Your task to perform on an android device: turn vacation reply on in the gmail app Image 0: 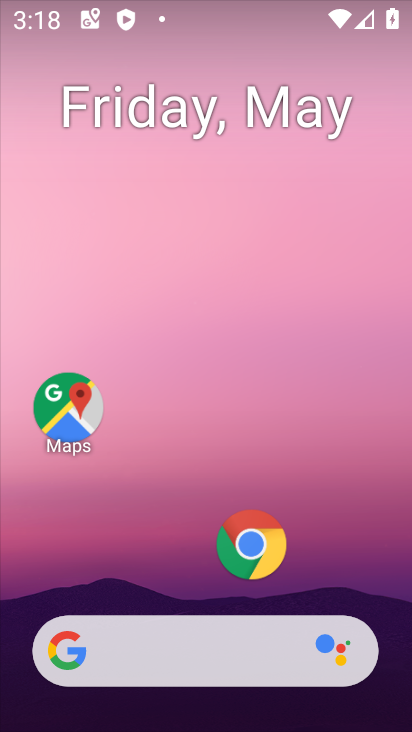
Step 0: drag from (203, 598) to (257, 270)
Your task to perform on an android device: turn vacation reply on in the gmail app Image 1: 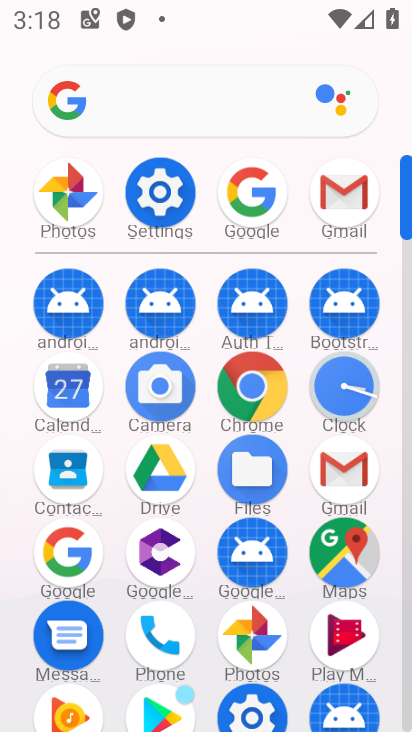
Step 1: click (325, 206)
Your task to perform on an android device: turn vacation reply on in the gmail app Image 2: 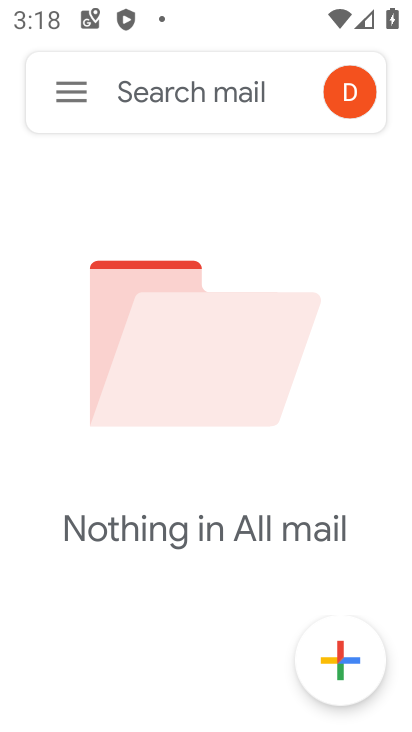
Step 2: click (84, 83)
Your task to perform on an android device: turn vacation reply on in the gmail app Image 3: 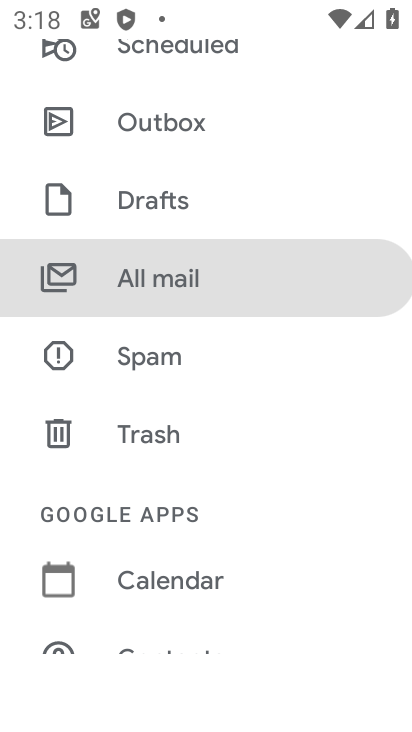
Step 3: drag from (239, 556) to (246, 238)
Your task to perform on an android device: turn vacation reply on in the gmail app Image 4: 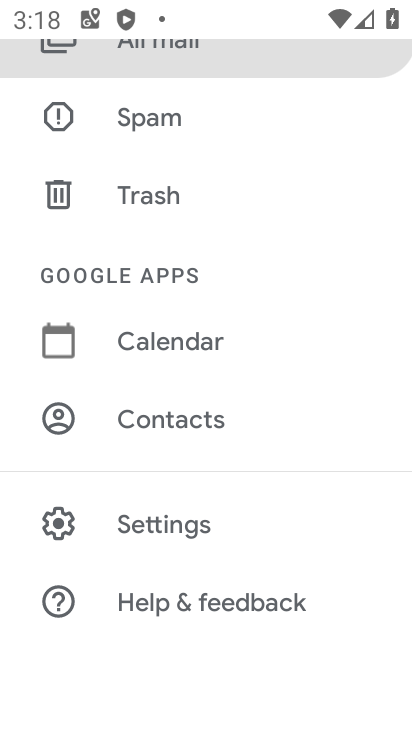
Step 4: click (220, 511)
Your task to perform on an android device: turn vacation reply on in the gmail app Image 5: 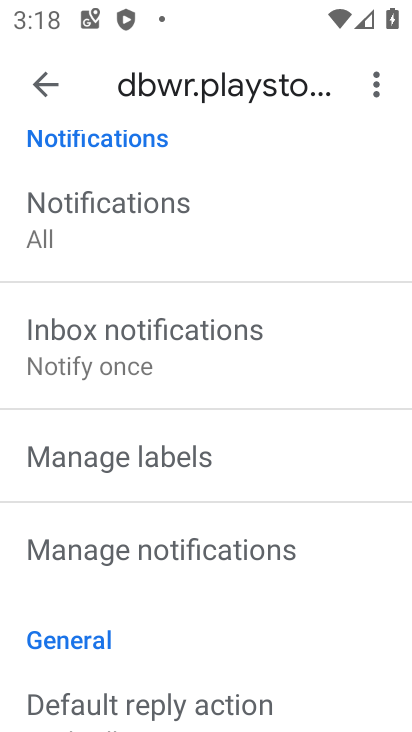
Step 5: drag from (256, 635) to (269, 320)
Your task to perform on an android device: turn vacation reply on in the gmail app Image 6: 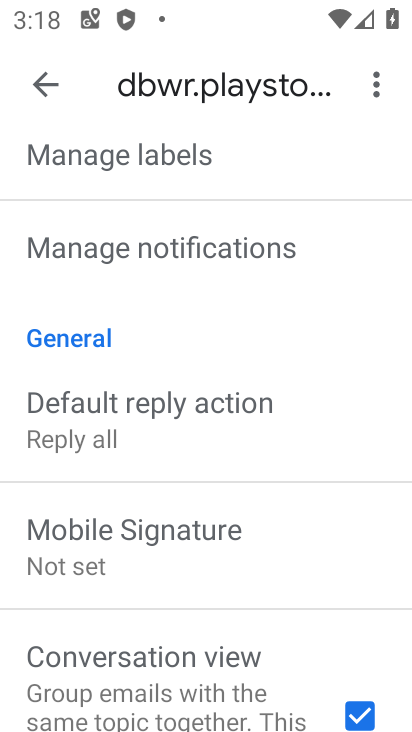
Step 6: drag from (242, 543) to (243, 309)
Your task to perform on an android device: turn vacation reply on in the gmail app Image 7: 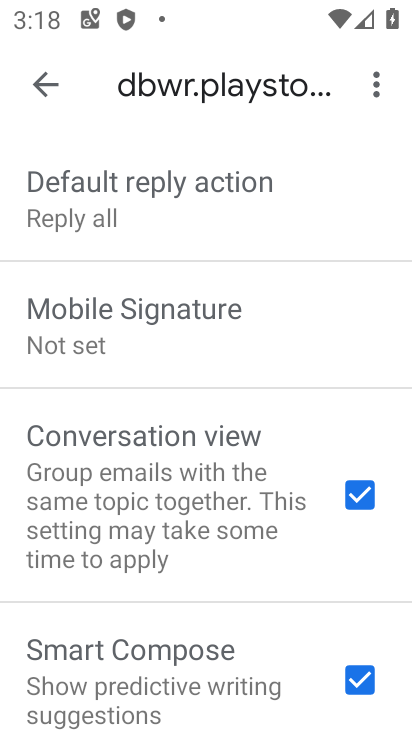
Step 7: drag from (233, 534) to (226, 322)
Your task to perform on an android device: turn vacation reply on in the gmail app Image 8: 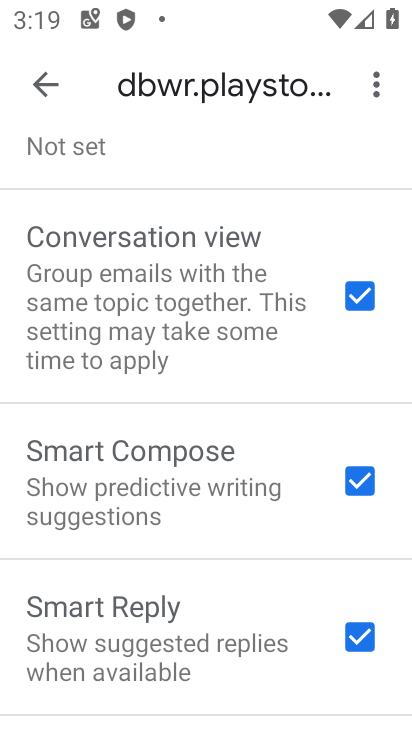
Step 8: drag from (220, 599) to (216, 366)
Your task to perform on an android device: turn vacation reply on in the gmail app Image 9: 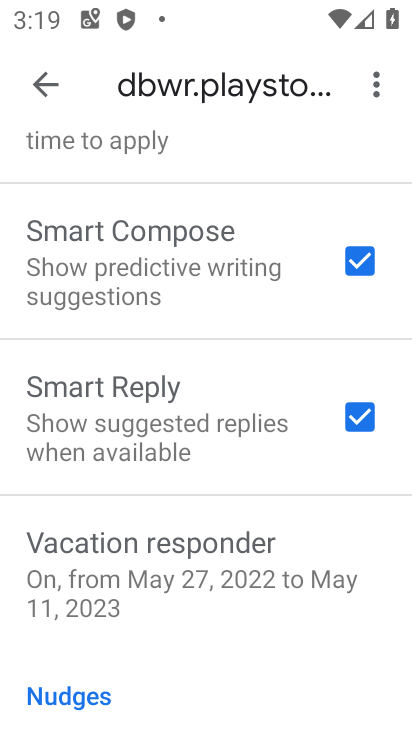
Step 9: click (216, 577)
Your task to perform on an android device: turn vacation reply on in the gmail app Image 10: 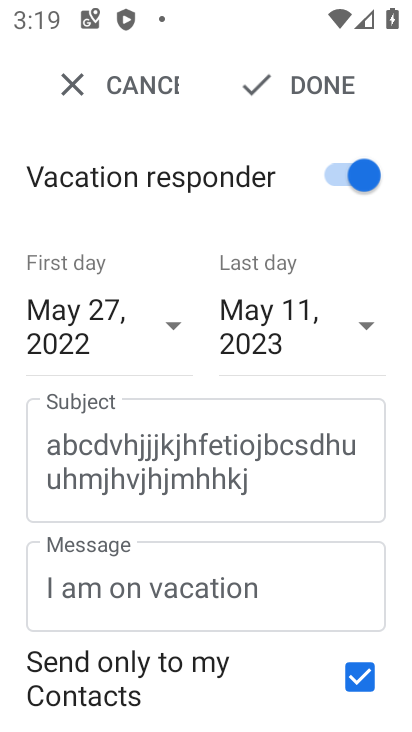
Step 10: click (325, 75)
Your task to perform on an android device: turn vacation reply on in the gmail app Image 11: 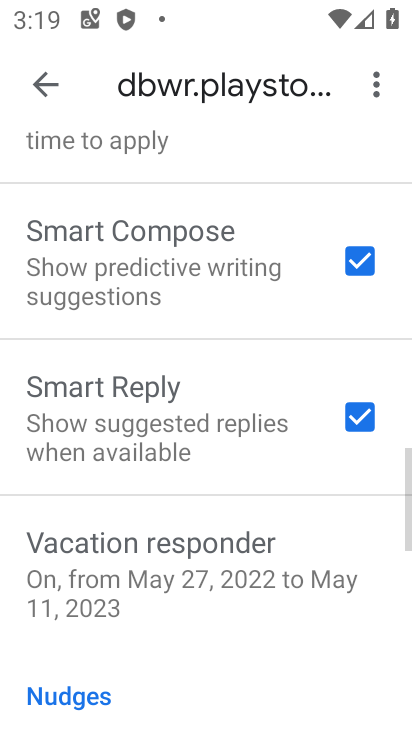
Step 11: task complete